Your task to perform on an android device: uninstall "Gmail" Image 0: 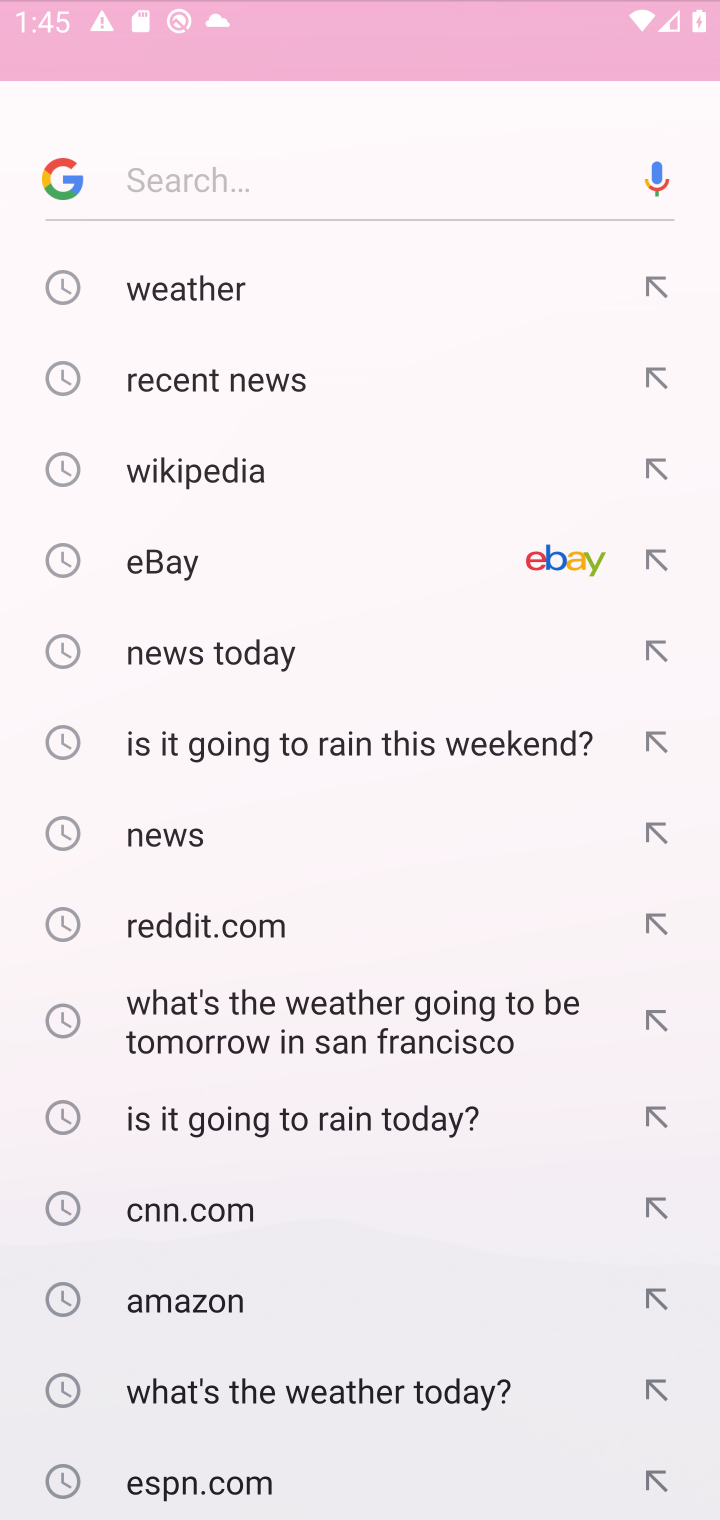
Step 0: press home button
Your task to perform on an android device: uninstall "Gmail" Image 1: 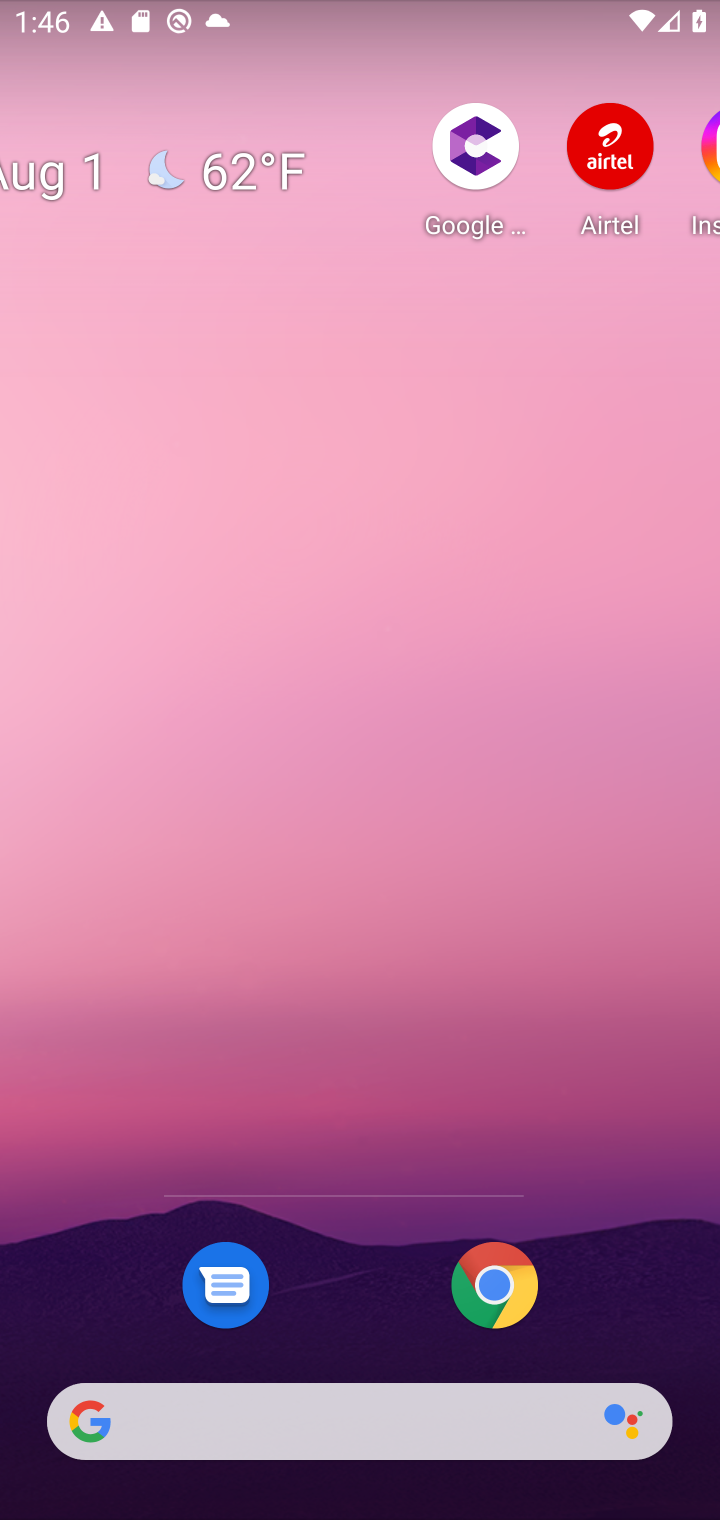
Step 1: click (262, 118)
Your task to perform on an android device: uninstall "Gmail" Image 2: 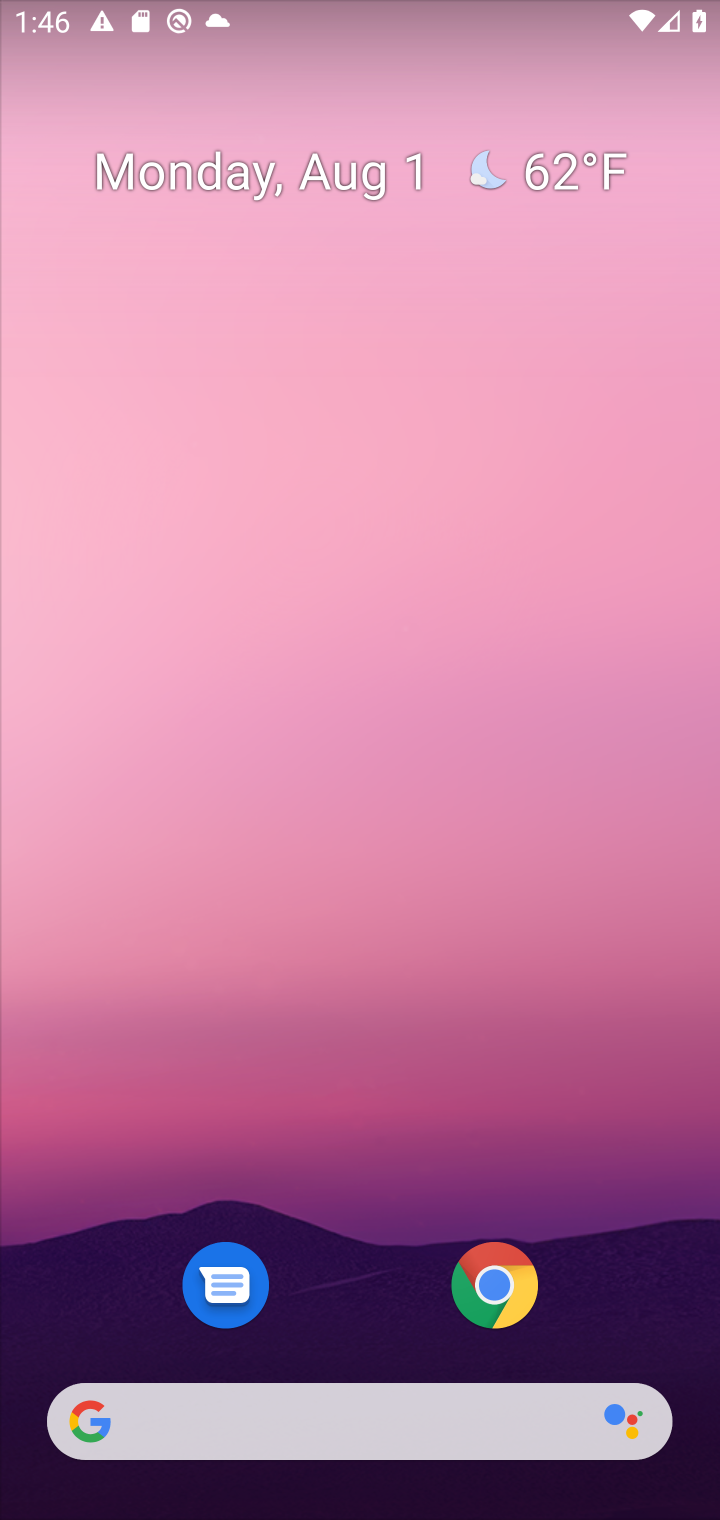
Step 2: drag from (406, 1383) to (404, 387)
Your task to perform on an android device: uninstall "Gmail" Image 3: 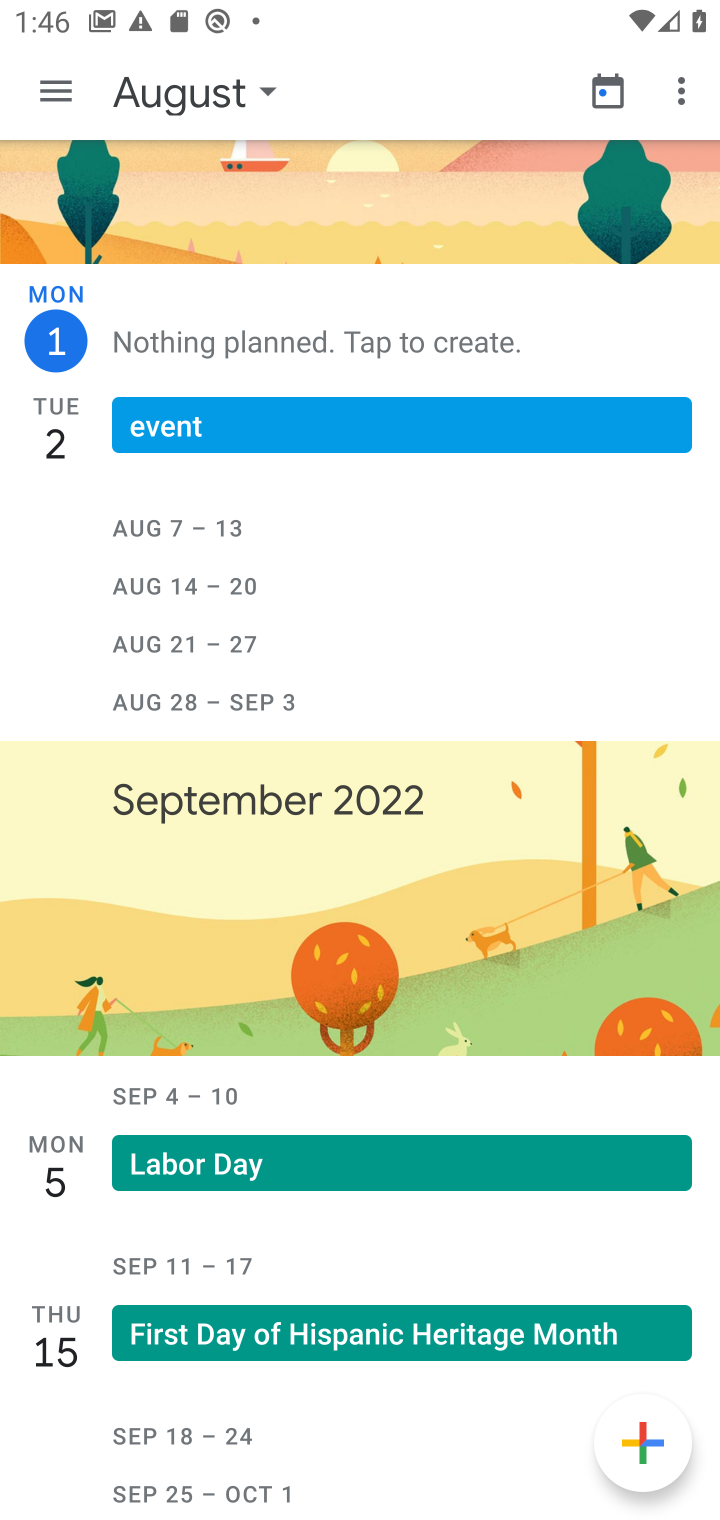
Step 3: press home button
Your task to perform on an android device: uninstall "Gmail" Image 4: 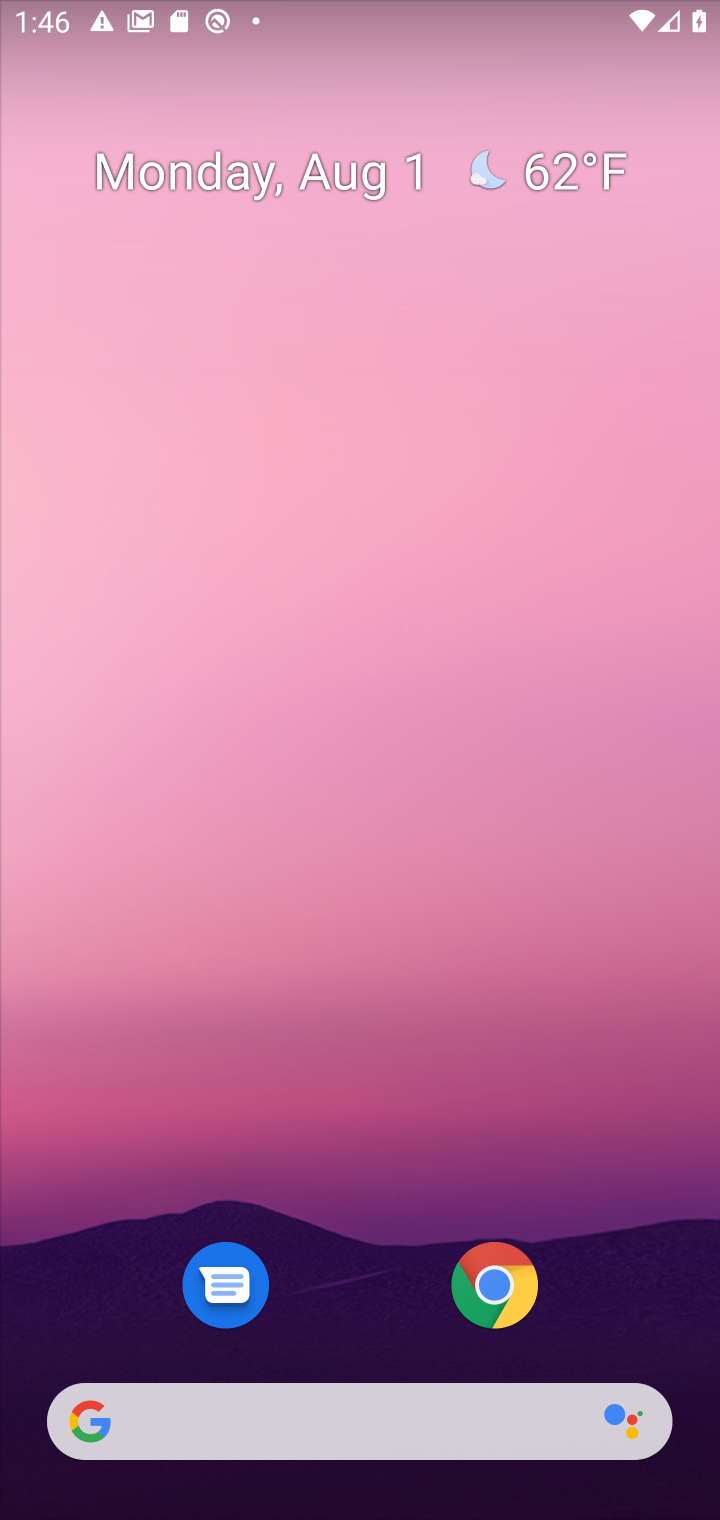
Step 4: drag from (338, 1392) to (368, 131)
Your task to perform on an android device: uninstall "Gmail" Image 5: 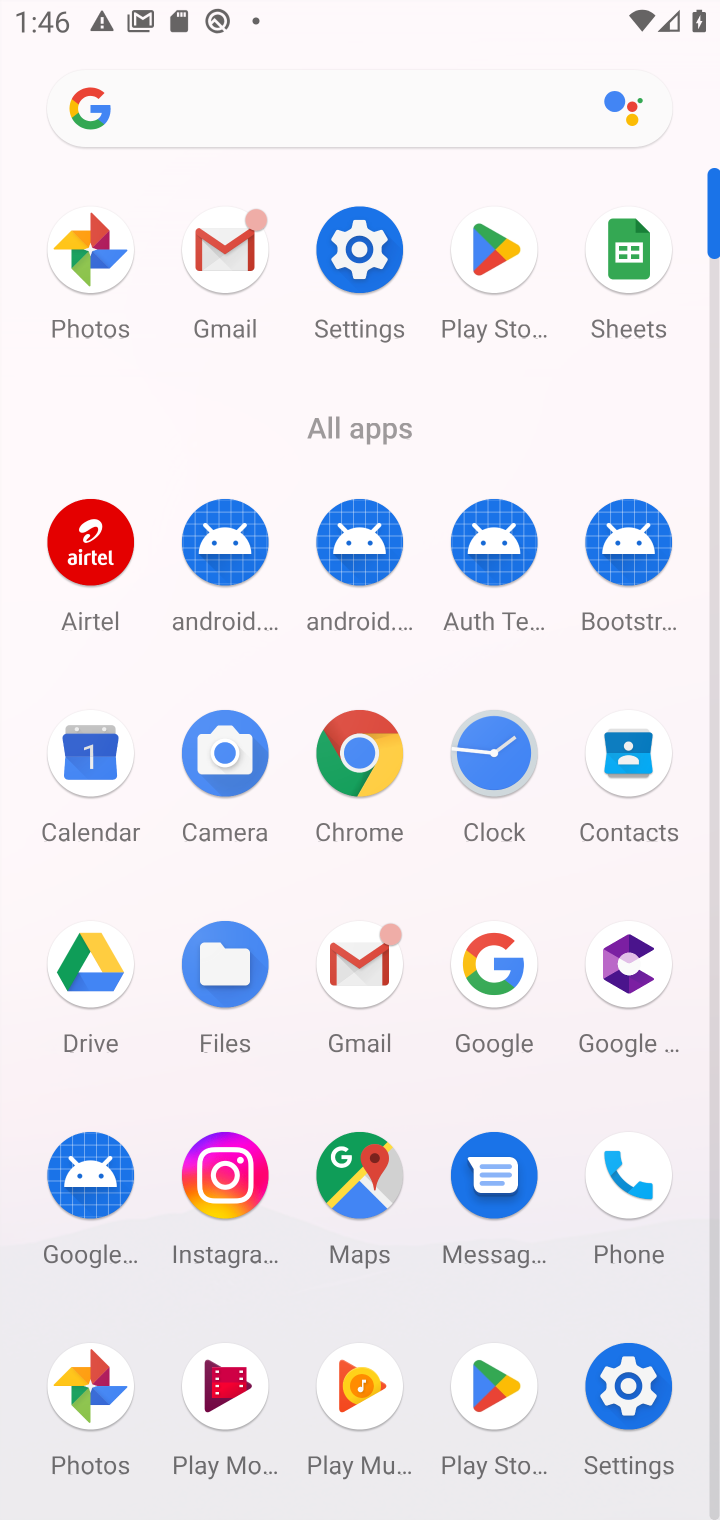
Step 5: click (502, 1393)
Your task to perform on an android device: uninstall "Gmail" Image 6: 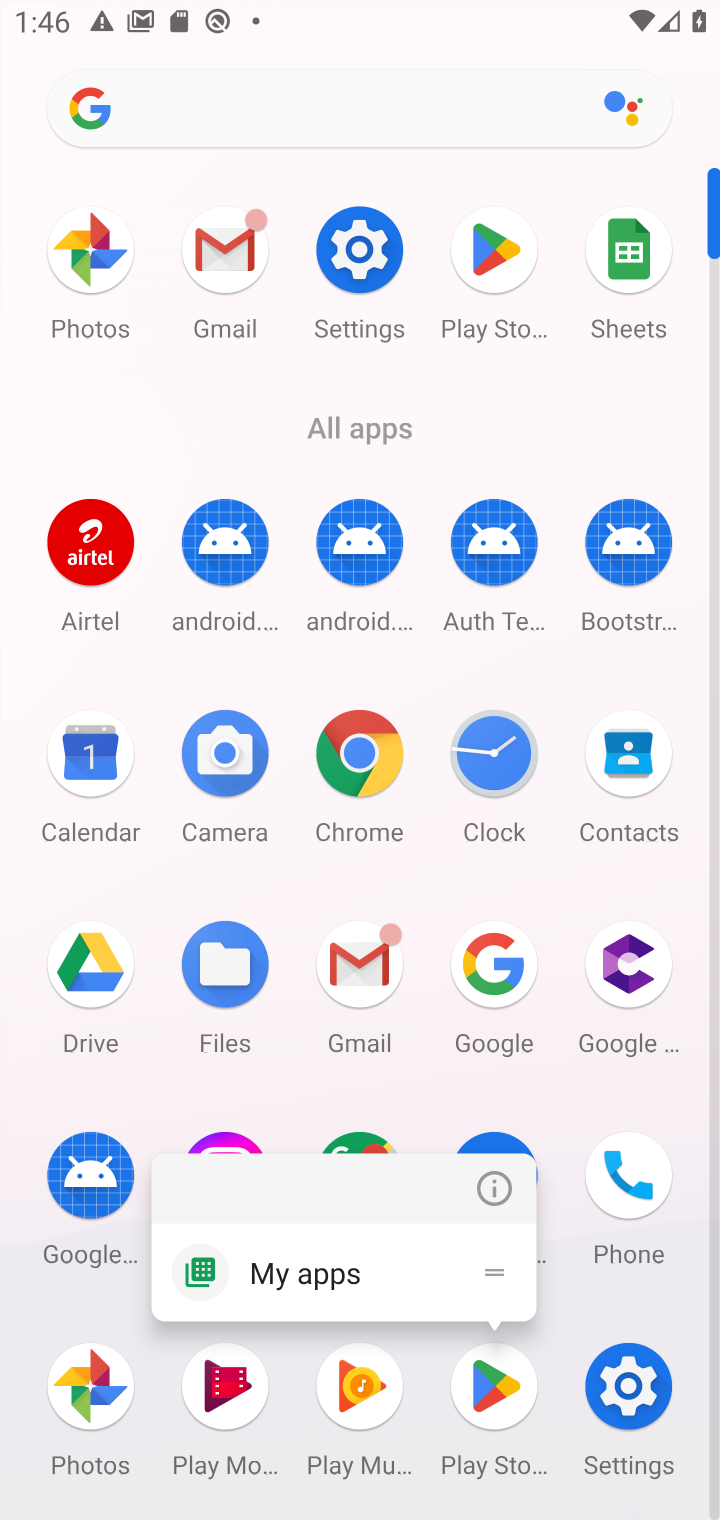
Step 6: click (502, 1393)
Your task to perform on an android device: uninstall "Gmail" Image 7: 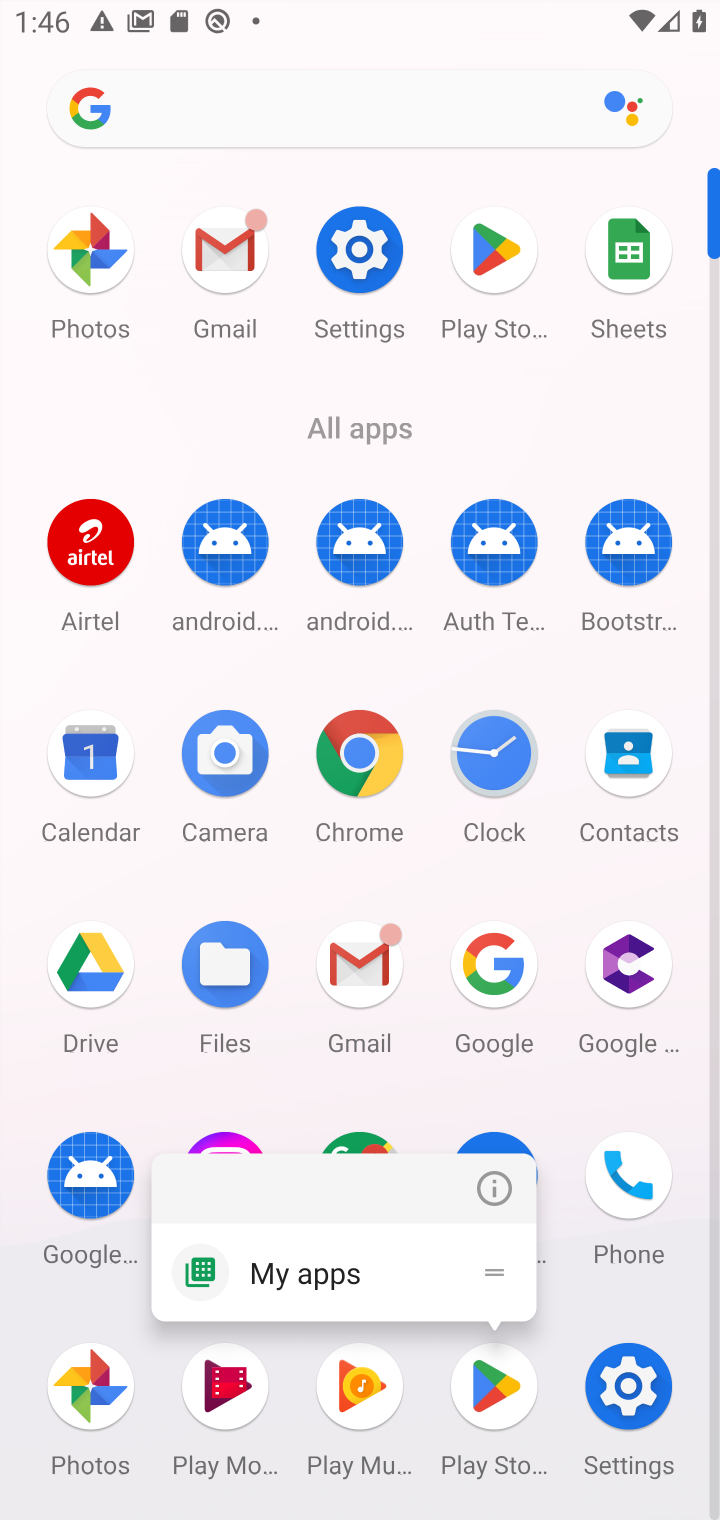
Step 7: click (488, 1390)
Your task to perform on an android device: uninstall "Gmail" Image 8: 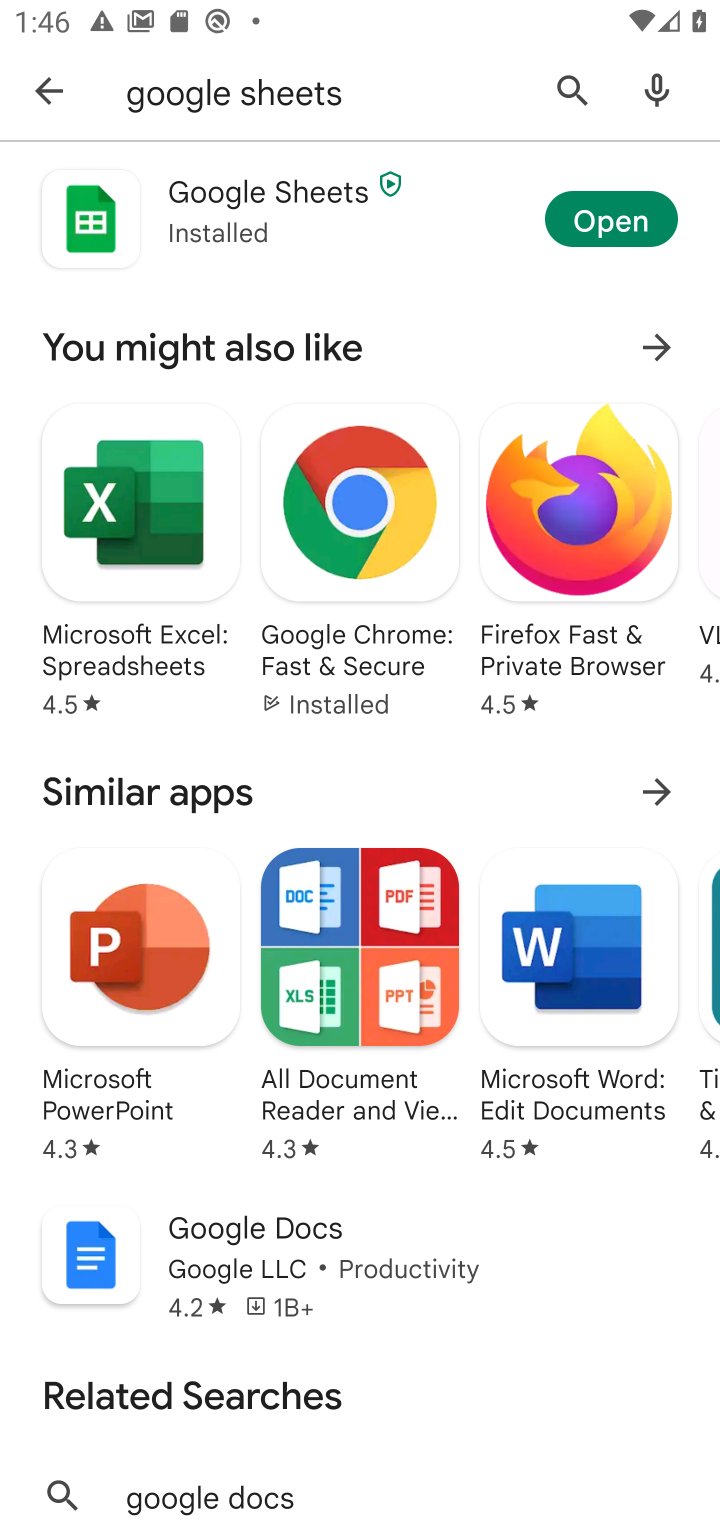
Step 8: click (562, 80)
Your task to perform on an android device: uninstall "Gmail" Image 9: 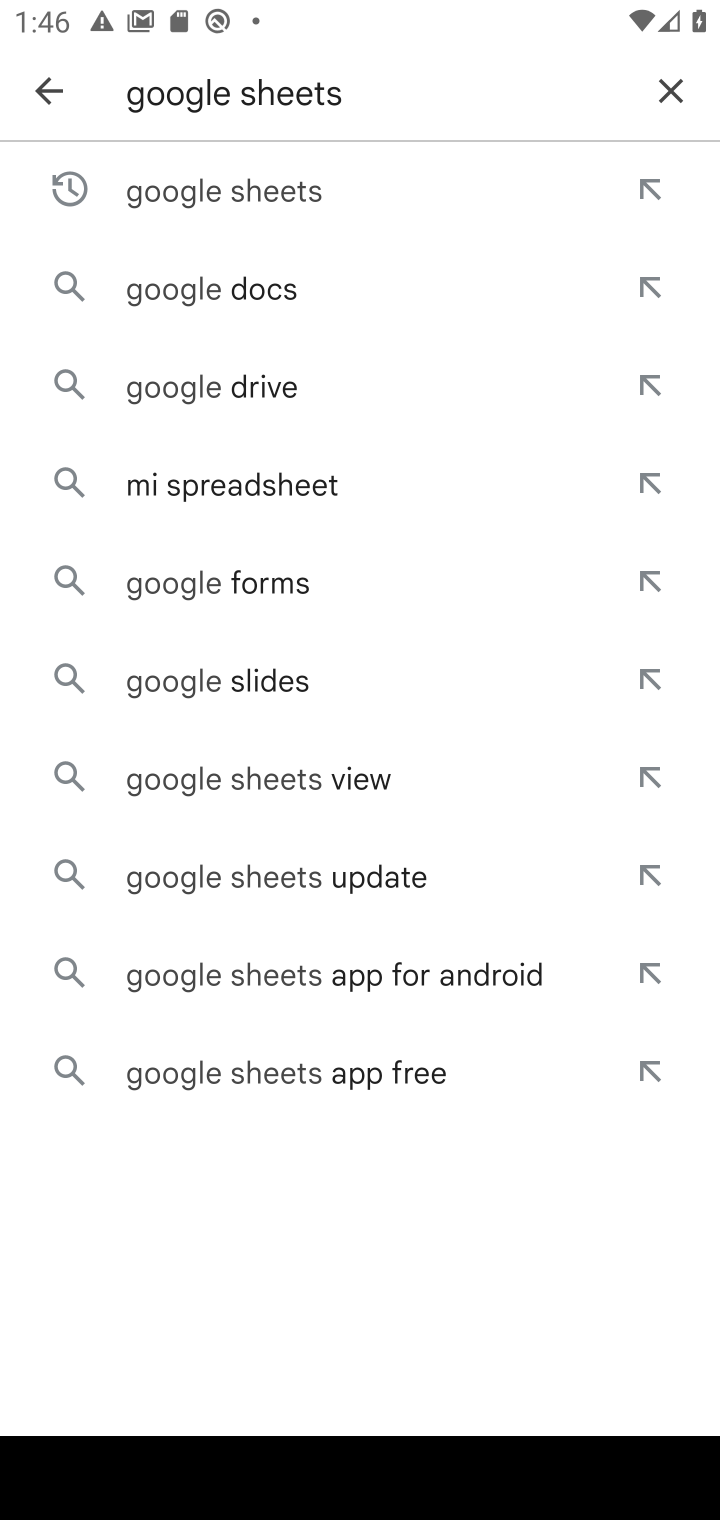
Step 9: click (659, 91)
Your task to perform on an android device: uninstall "Gmail" Image 10: 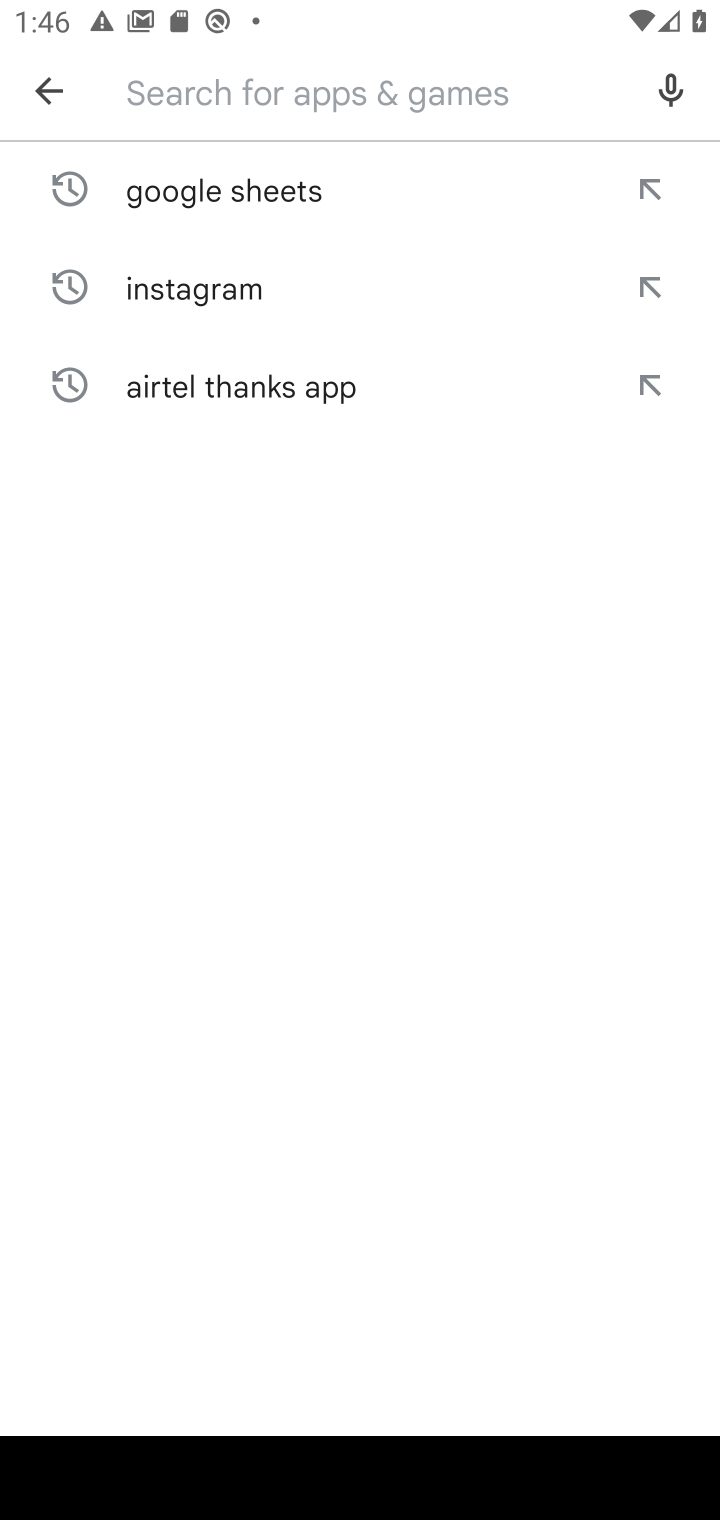
Step 10: type "Gmail"
Your task to perform on an android device: uninstall "Gmail" Image 11: 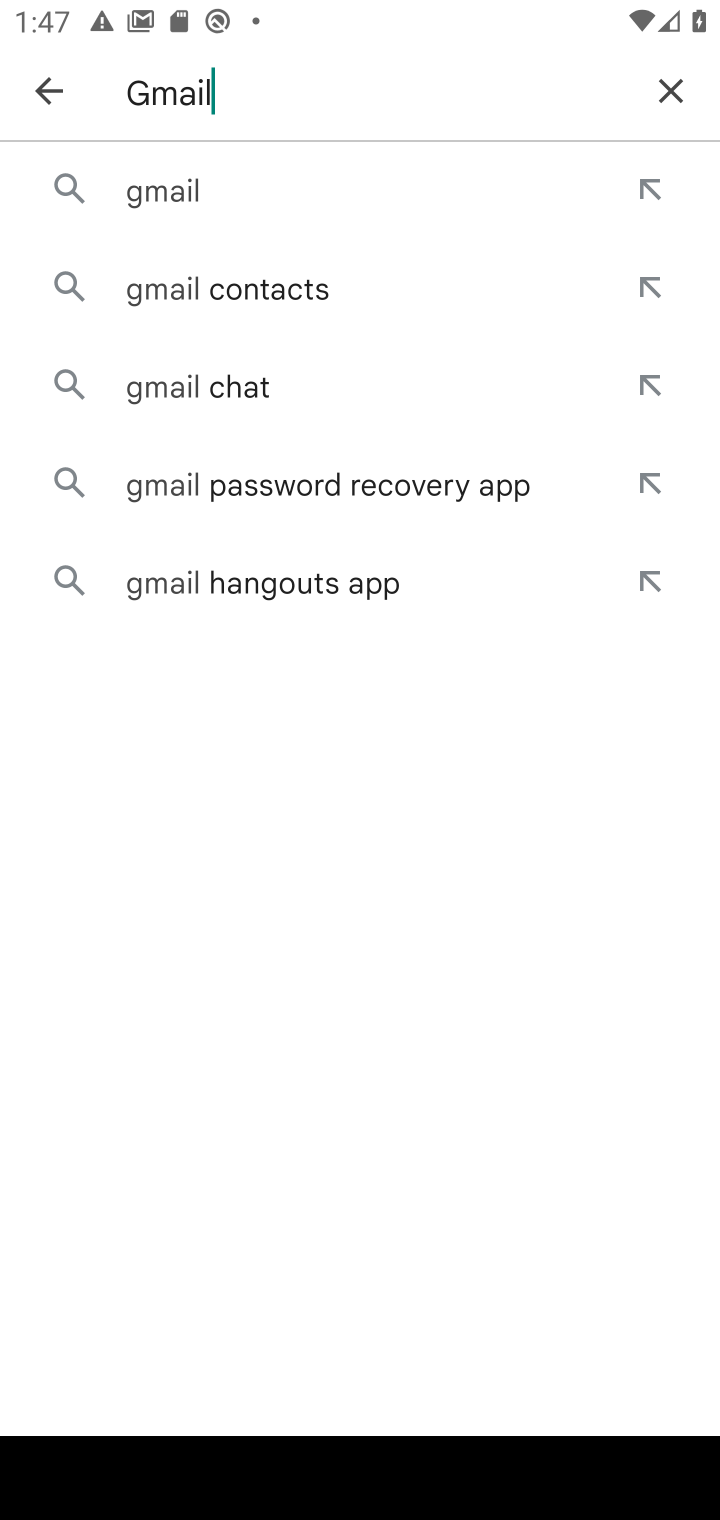
Step 11: click (181, 189)
Your task to perform on an android device: uninstall "Gmail" Image 12: 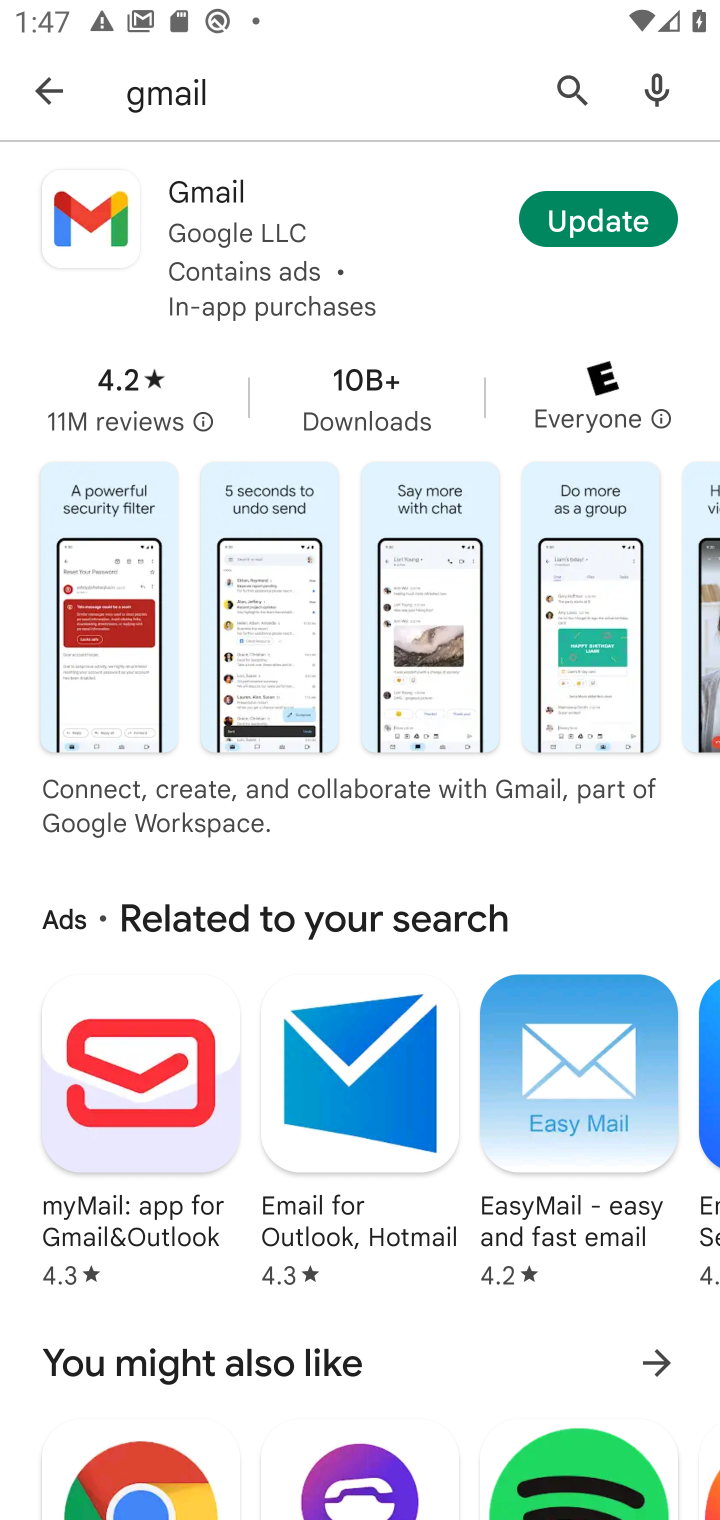
Step 12: task complete